Your task to perform on an android device: toggle location history Image 0: 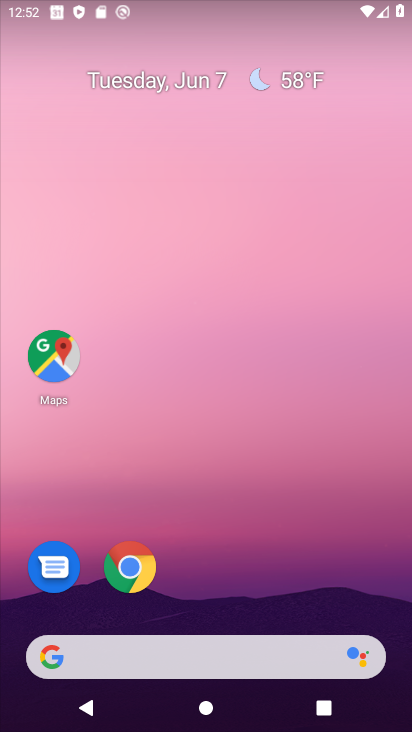
Step 0: drag from (397, 711) to (403, 147)
Your task to perform on an android device: toggle location history Image 1: 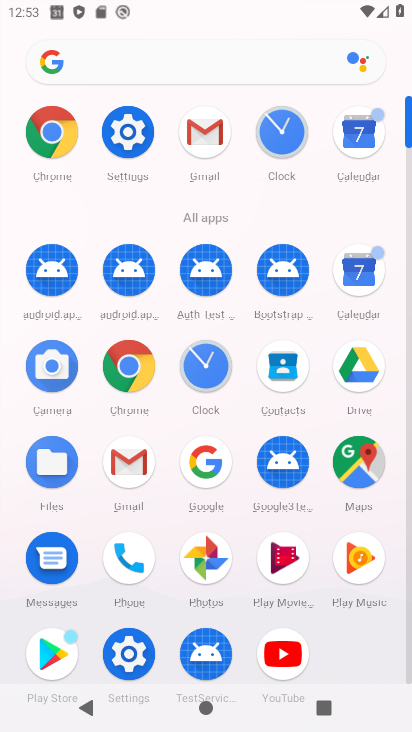
Step 1: click (132, 133)
Your task to perform on an android device: toggle location history Image 2: 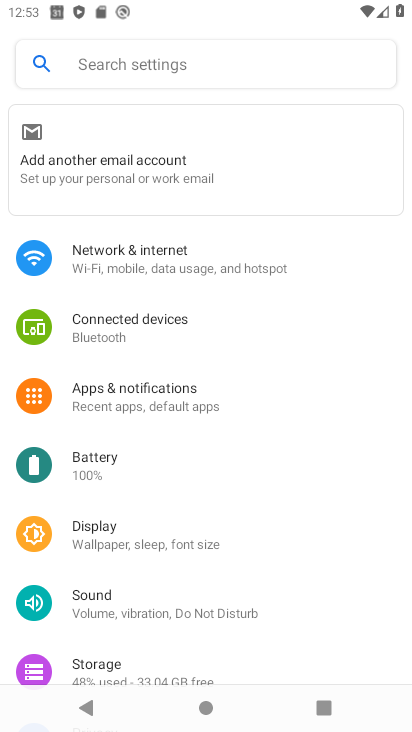
Step 2: drag from (242, 605) to (272, 254)
Your task to perform on an android device: toggle location history Image 3: 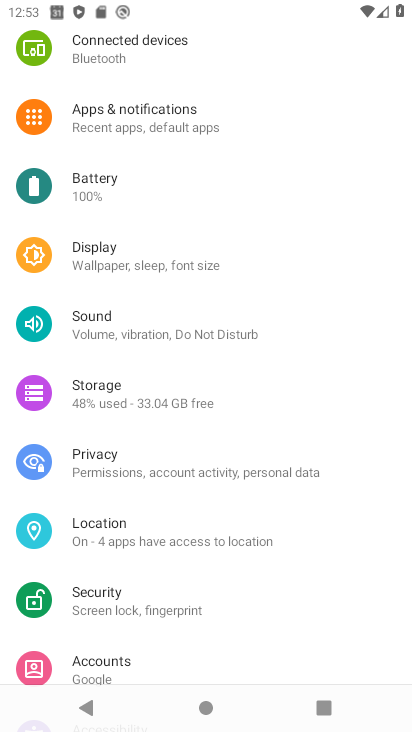
Step 3: click (124, 540)
Your task to perform on an android device: toggle location history Image 4: 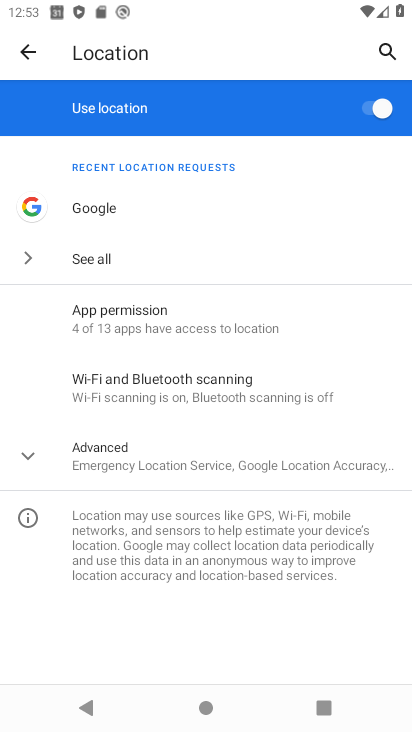
Step 4: click (47, 453)
Your task to perform on an android device: toggle location history Image 5: 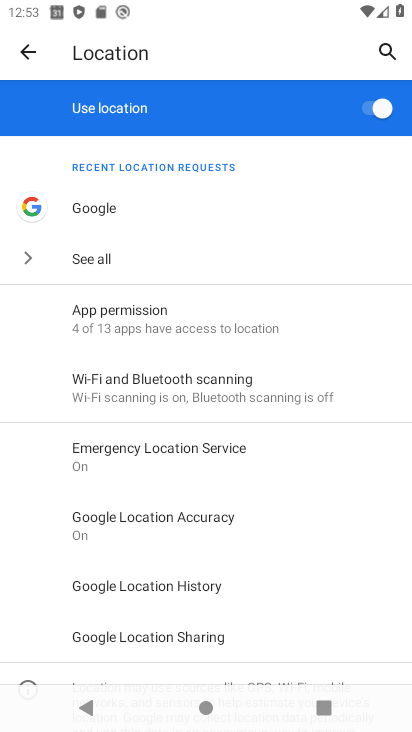
Step 5: drag from (339, 598) to (343, 304)
Your task to perform on an android device: toggle location history Image 6: 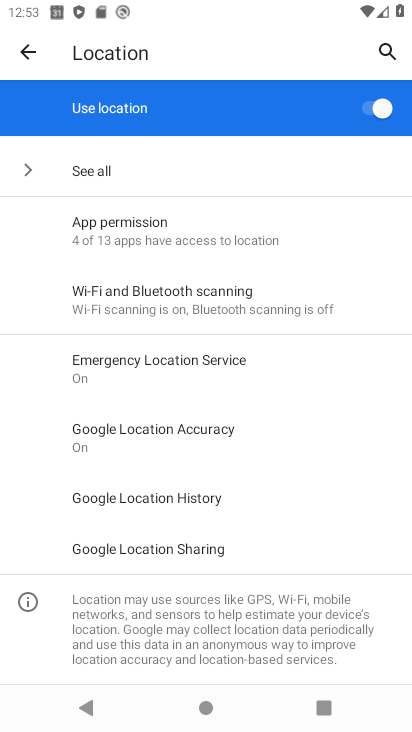
Step 6: click (160, 495)
Your task to perform on an android device: toggle location history Image 7: 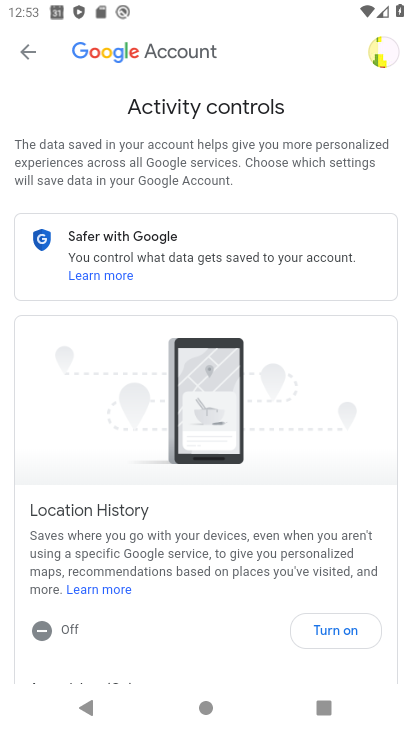
Step 7: click (339, 630)
Your task to perform on an android device: toggle location history Image 8: 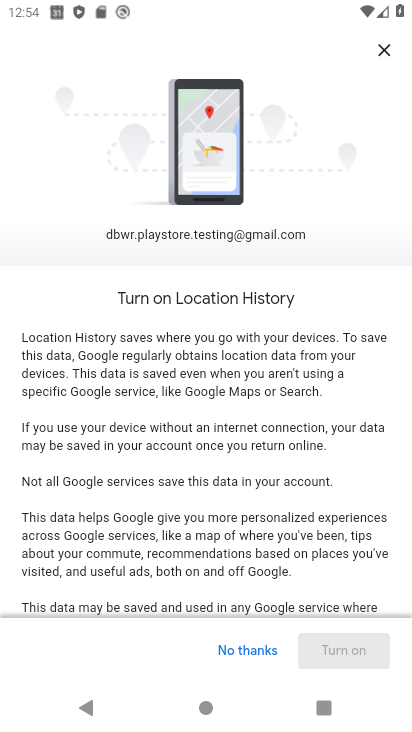
Step 8: drag from (302, 558) to (360, 225)
Your task to perform on an android device: toggle location history Image 9: 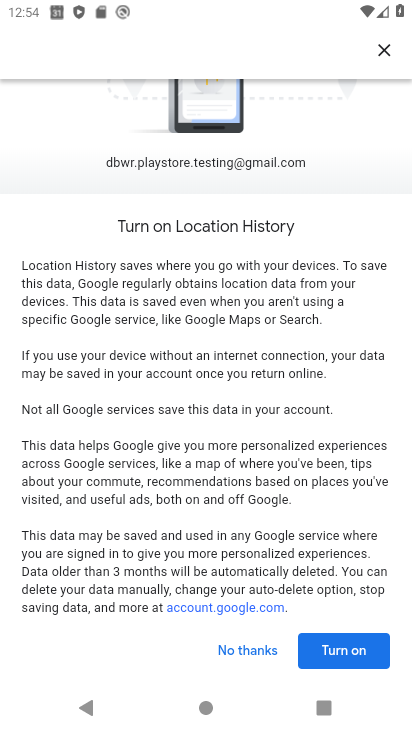
Step 9: click (342, 646)
Your task to perform on an android device: toggle location history Image 10: 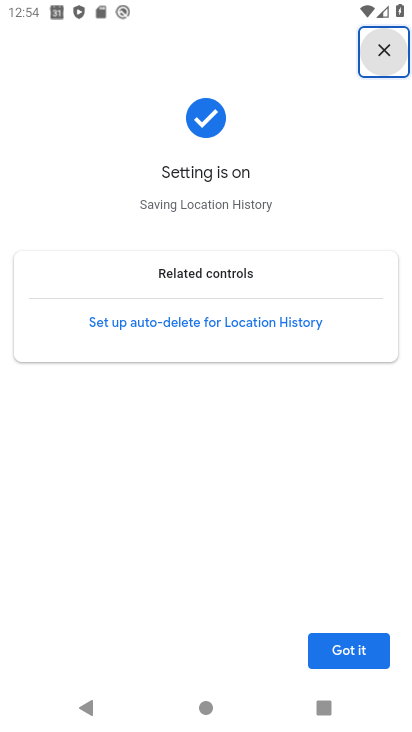
Step 10: click (349, 646)
Your task to perform on an android device: toggle location history Image 11: 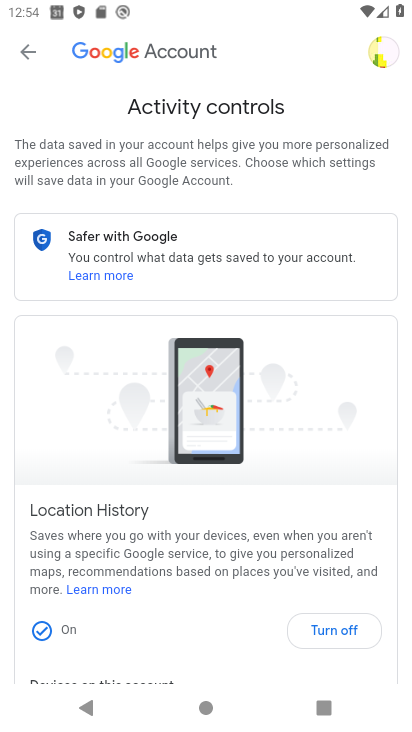
Step 11: task complete